Your task to perform on an android device: What is the news today? Image 0: 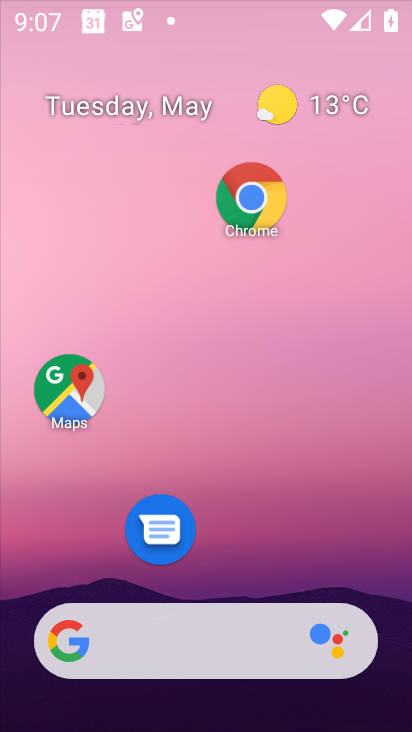
Step 0: drag from (359, 555) to (373, 291)
Your task to perform on an android device: What is the news today? Image 1: 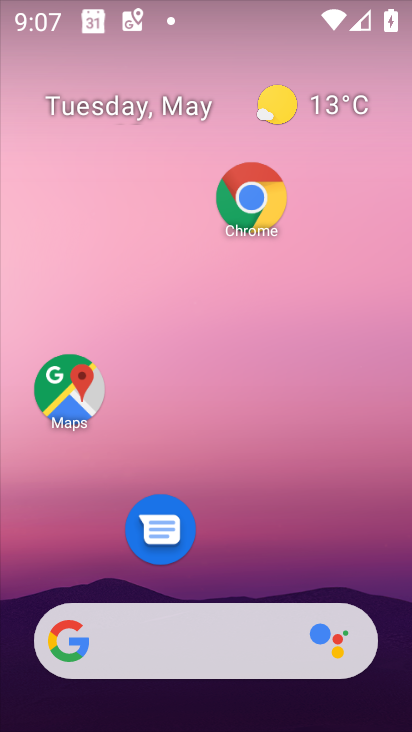
Step 1: drag from (278, 555) to (285, 222)
Your task to perform on an android device: What is the news today? Image 2: 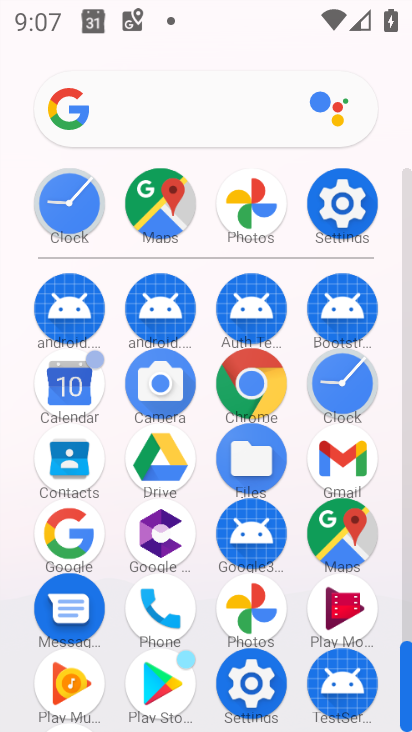
Step 2: click (256, 380)
Your task to perform on an android device: What is the news today? Image 3: 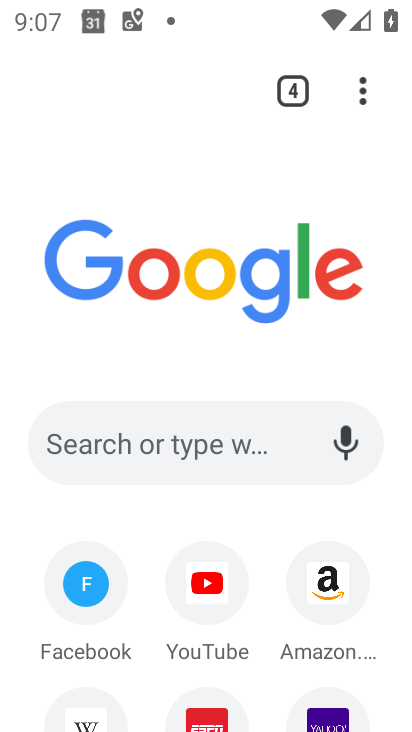
Step 3: task complete